Your task to perform on an android device: change the clock display to analog Image 0: 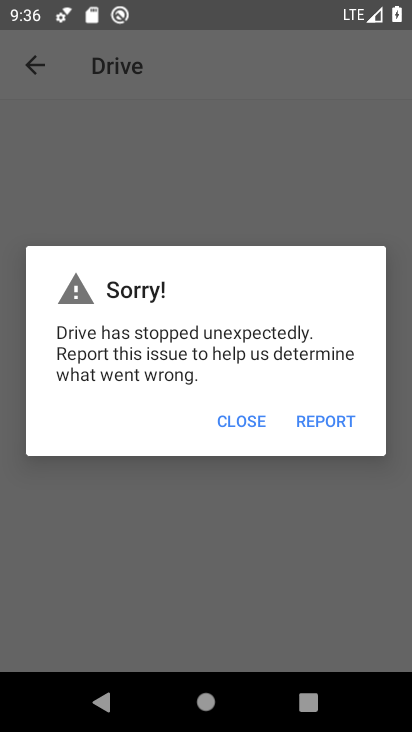
Step 0: press home button
Your task to perform on an android device: change the clock display to analog Image 1: 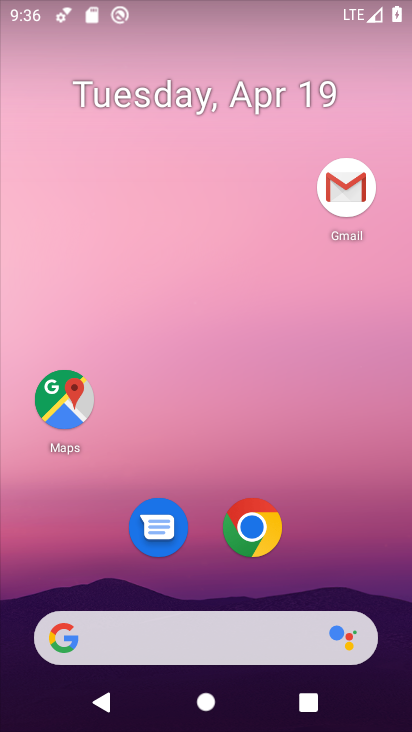
Step 1: drag from (371, 544) to (386, 136)
Your task to perform on an android device: change the clock display to analog Image 2: 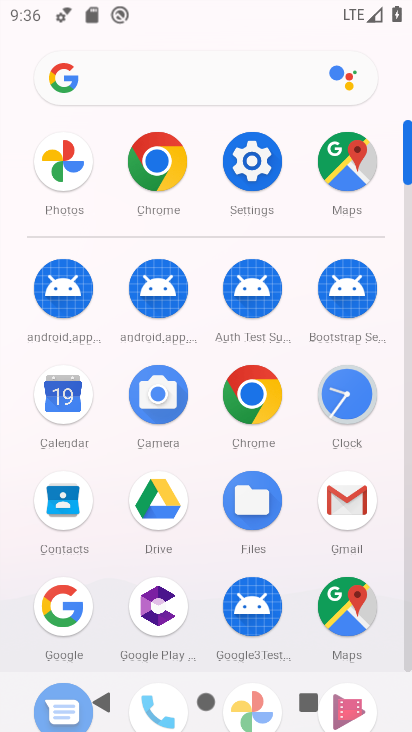
Step 2: click (352, 404)
Your task to perform on an android device: change the clock display to analog Image 3: 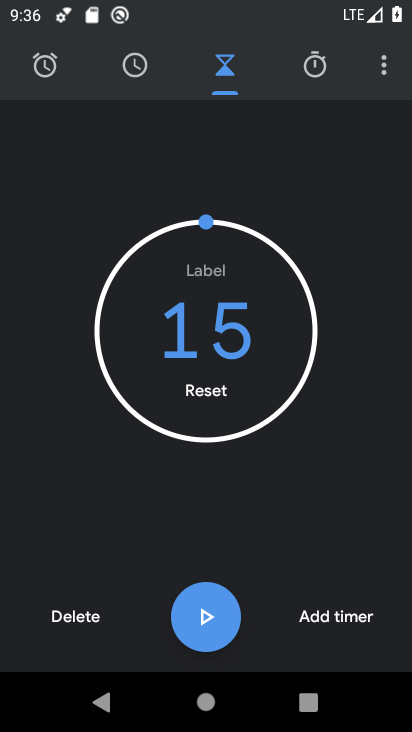
Step 3: click (387, 77)
Your task to perform on an android device: change the clock display to analog Image 4: 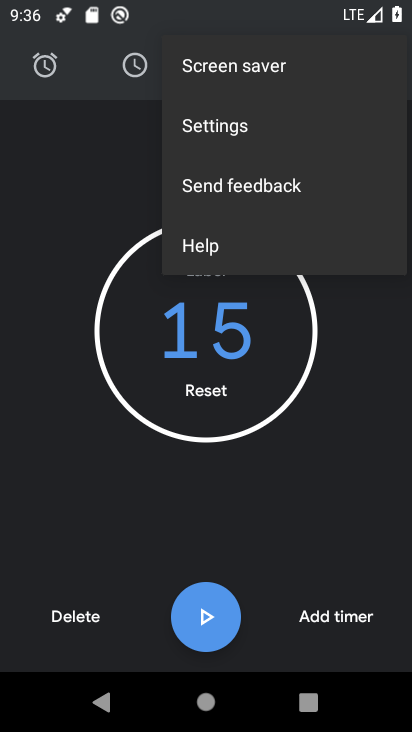
Step 4: click (236, 140)
Your task to perform on an android device: change the clock display to analog Image 5: 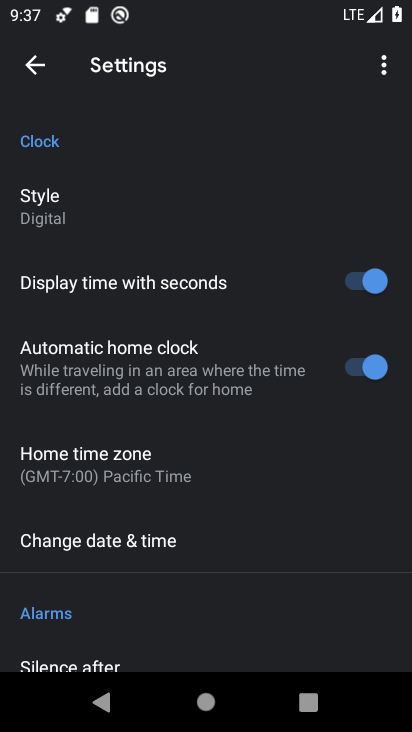
Step 5: click (59, 203)
Your task to perform on an android device: change the clock display to analog Image 6: 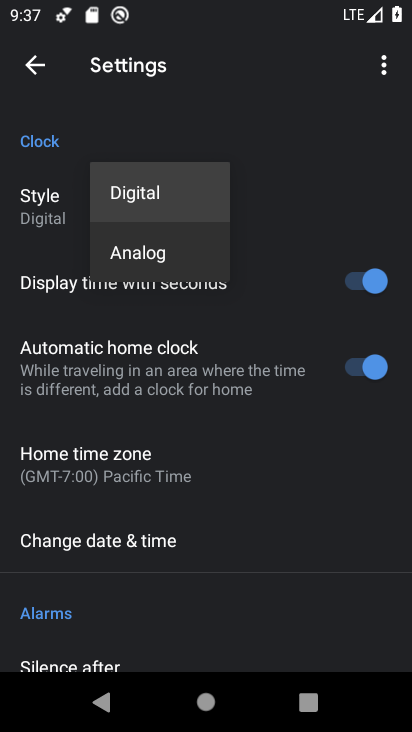
Step 6: click (153, 260)
Your task to perform on an android device: change the clock display to analog Image 7: 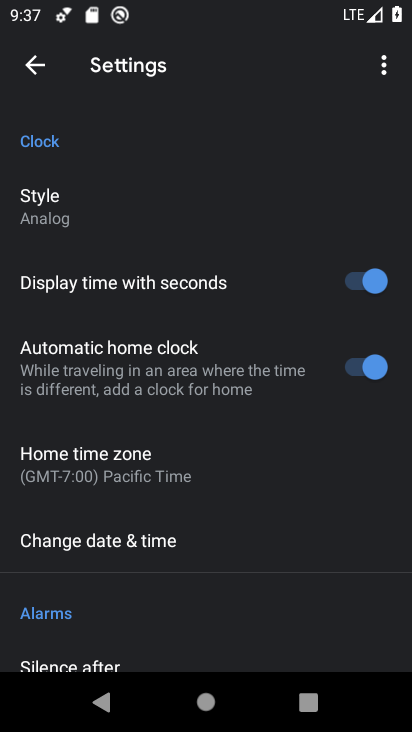
Step 7: task complete